Your task to perform on an android device: turn on translation in the chrome app Image 0: 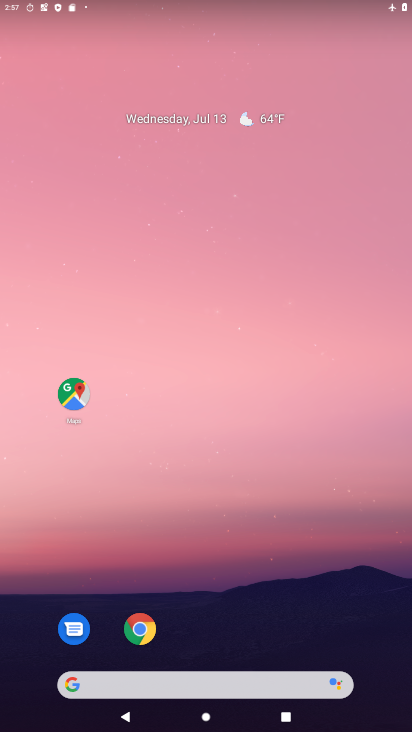
Step 0: drag from (321, 640) to (287, 141)
Your task to perform on an android device: turn on translation in the chrome app Image 1: 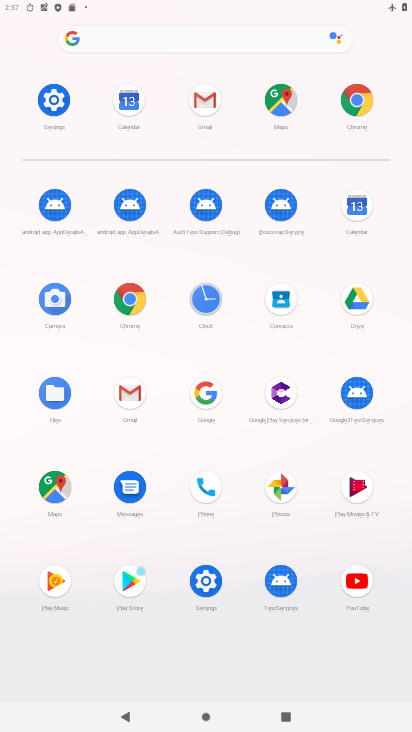
Step 1: click (137, 305)
Your task to perform on an android device: turn on translation in the chrome app Image 2: 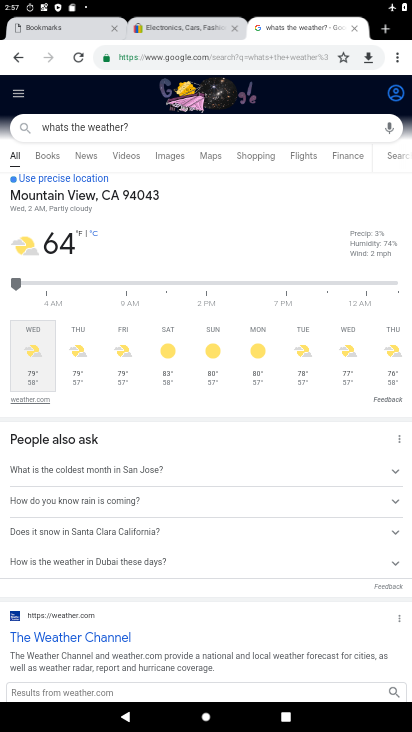
Step 2: drag from (398, 55) to (285, 345)
Your task to perform on an android device: turn on translation in the chrome app Image 3: 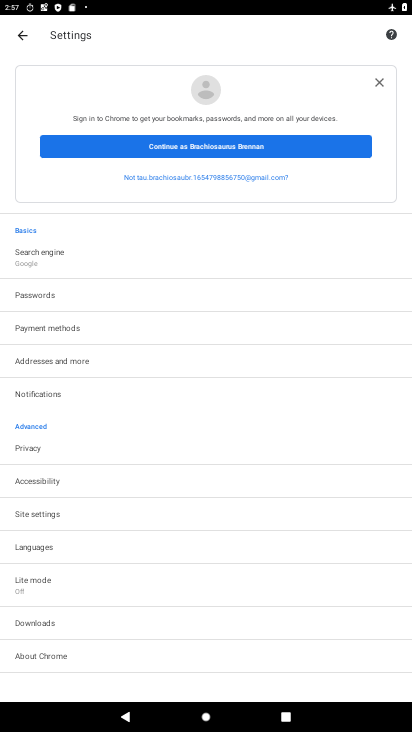
Step 3: click (57, 521)
Your task to perform on an android device: turn on translation in the chrome app Image 4: 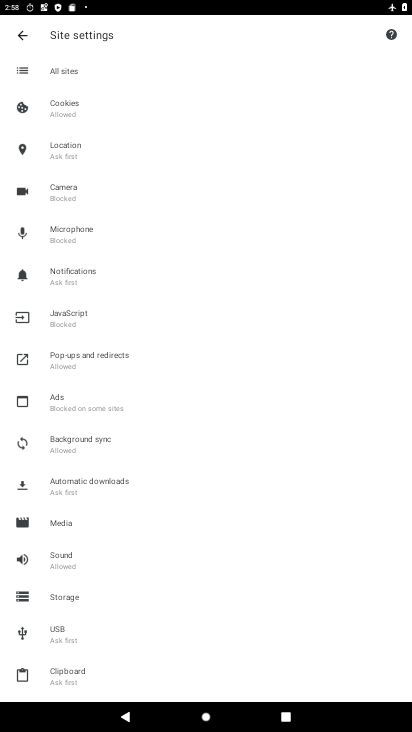
Step 4: click (128, 325)
Your task to perform on an android device: turn on translation in the chrome app Image 5: 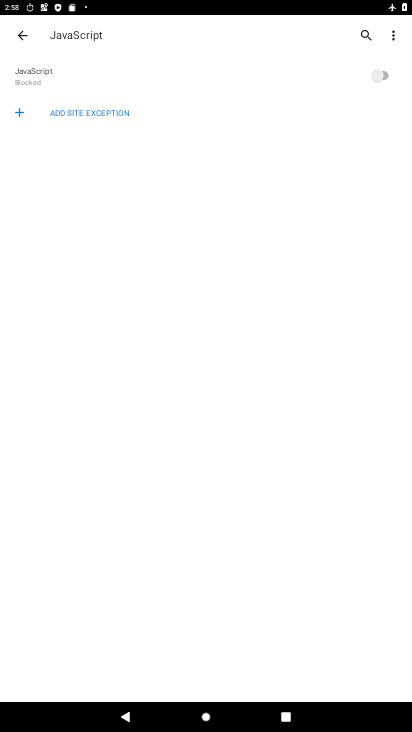
Step 5: click (386, 71)
Your task to perform on an android device: turn on translation in the chrome app Image 6: 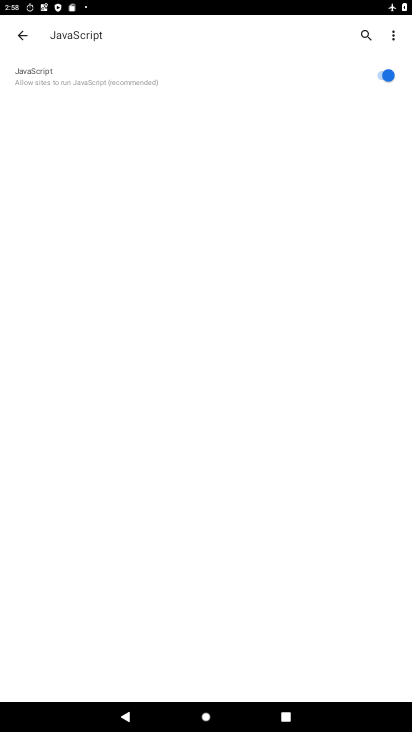
Step 6: task complete